Your task to perform on an android device: What's on the menu at Papa Murphy's? Image 0: 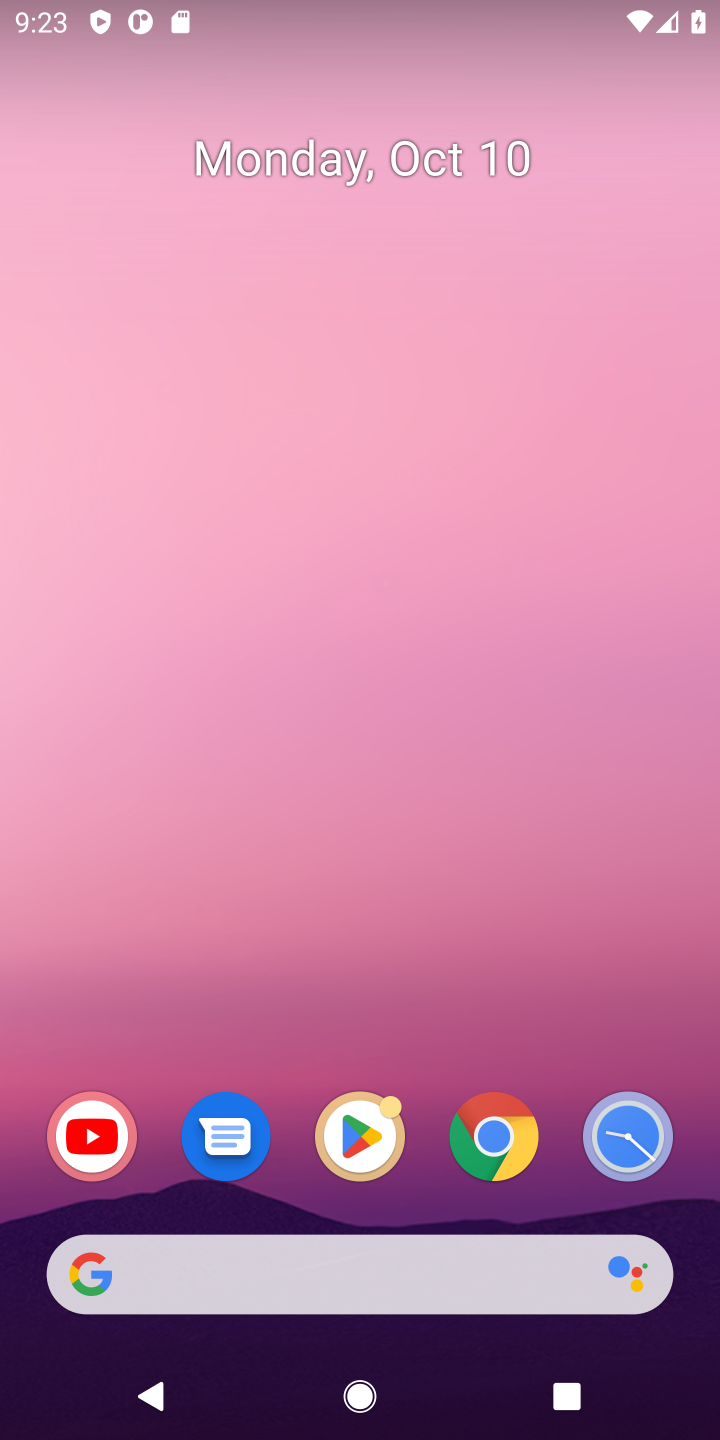
Step 0: click (471, 1152)
Your task to perform on an android device: What's on the menu at Papa Murphy's? Image 1: 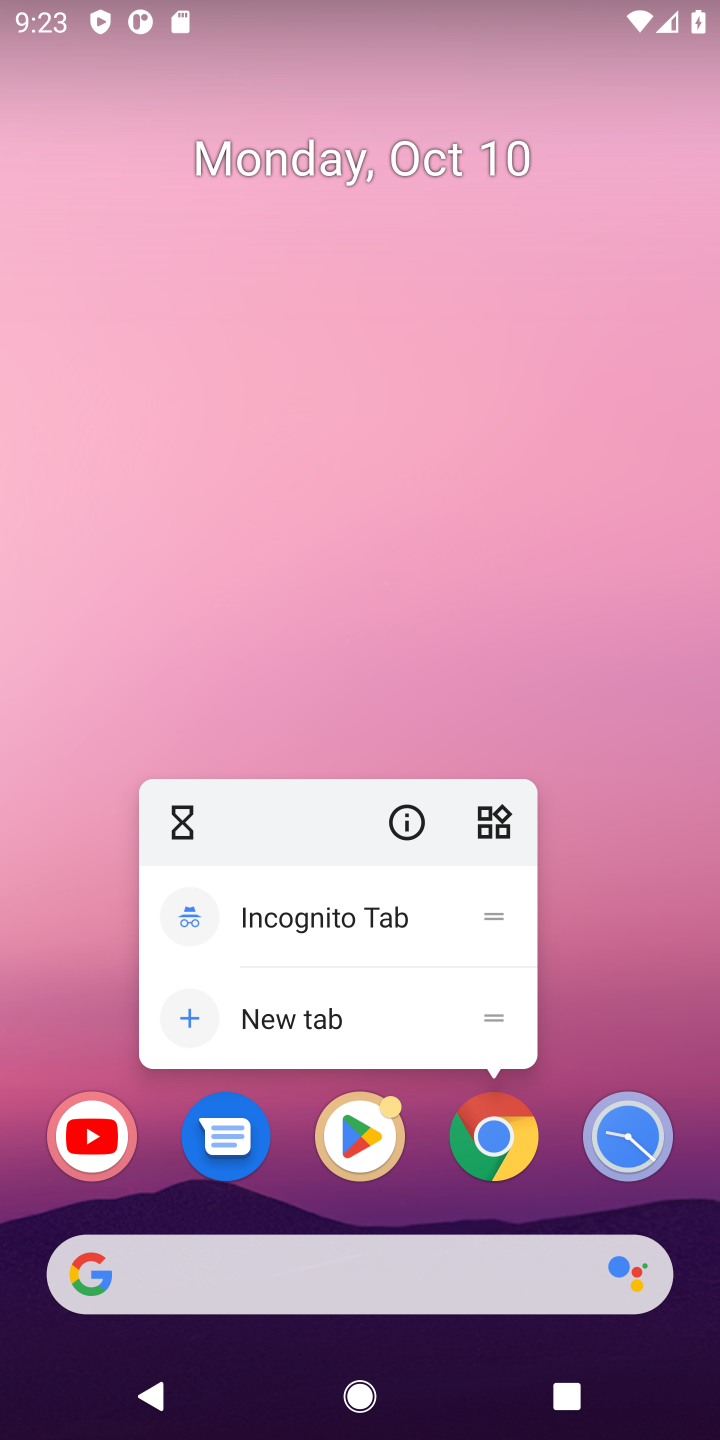
Step 1: click (483, 1151)
Your task to perform on an android device: What's on the menu at Papa Murphy's? Image 2: 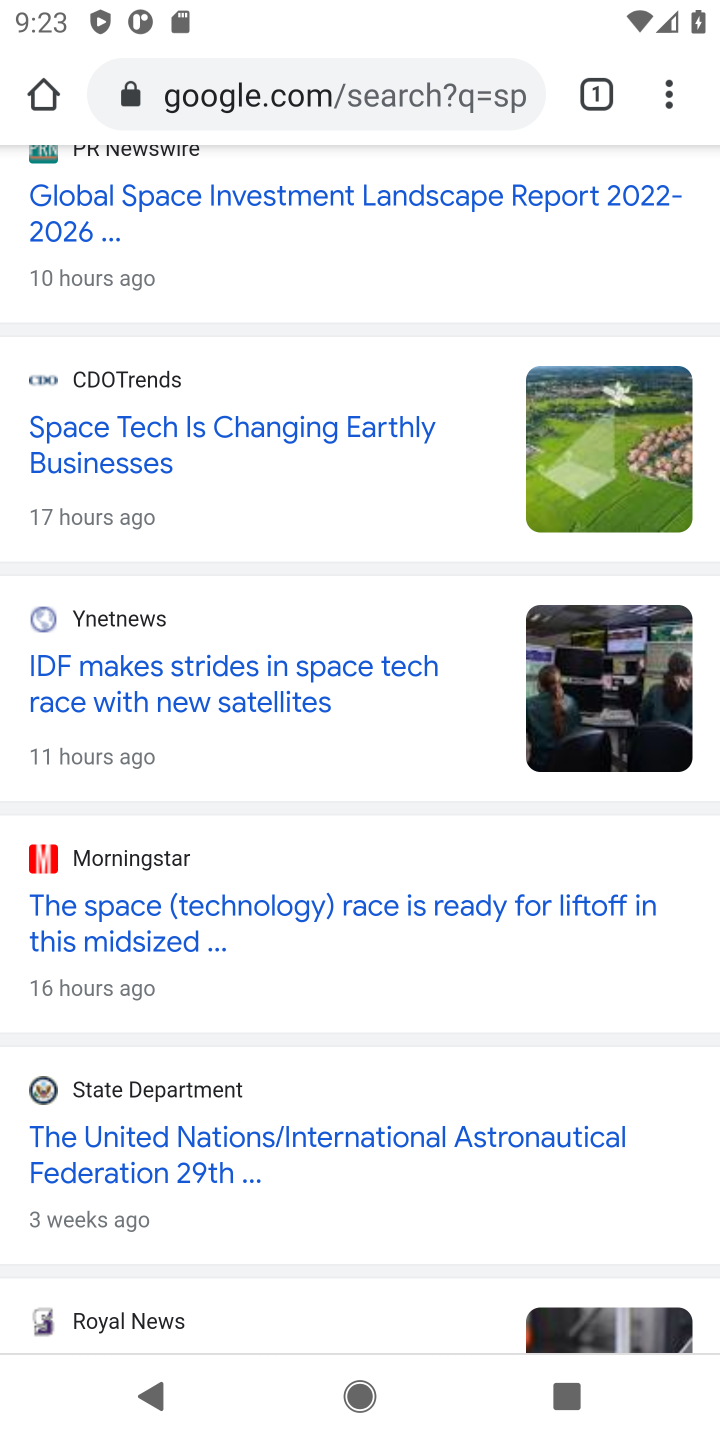
Step 2: click (260, 109)
Your task to perform on an android device: What's on the menu at Papa Murphy's? Image 3: 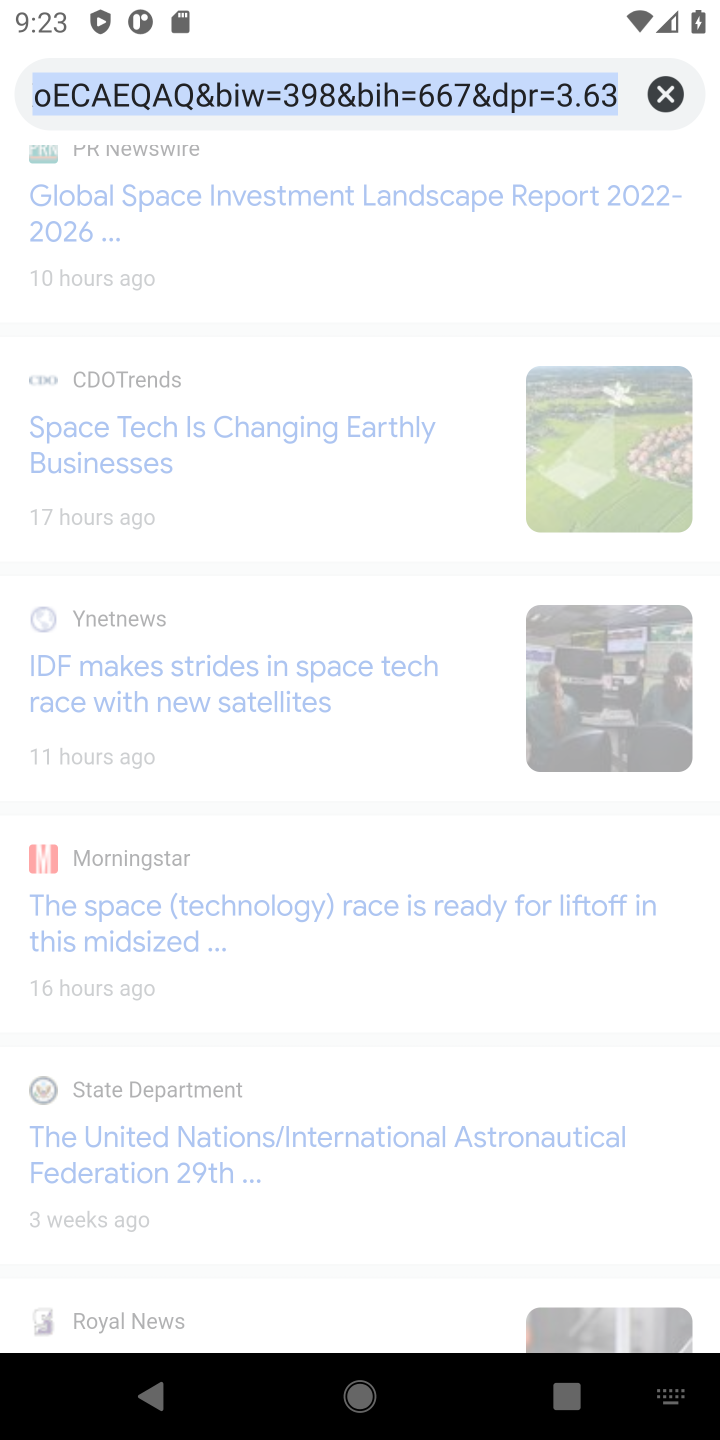
Step 3: type "menu at Papa Murphy's"
Your task to perform on an android device: What's on the menu at Papa Murphy's? Image 4: 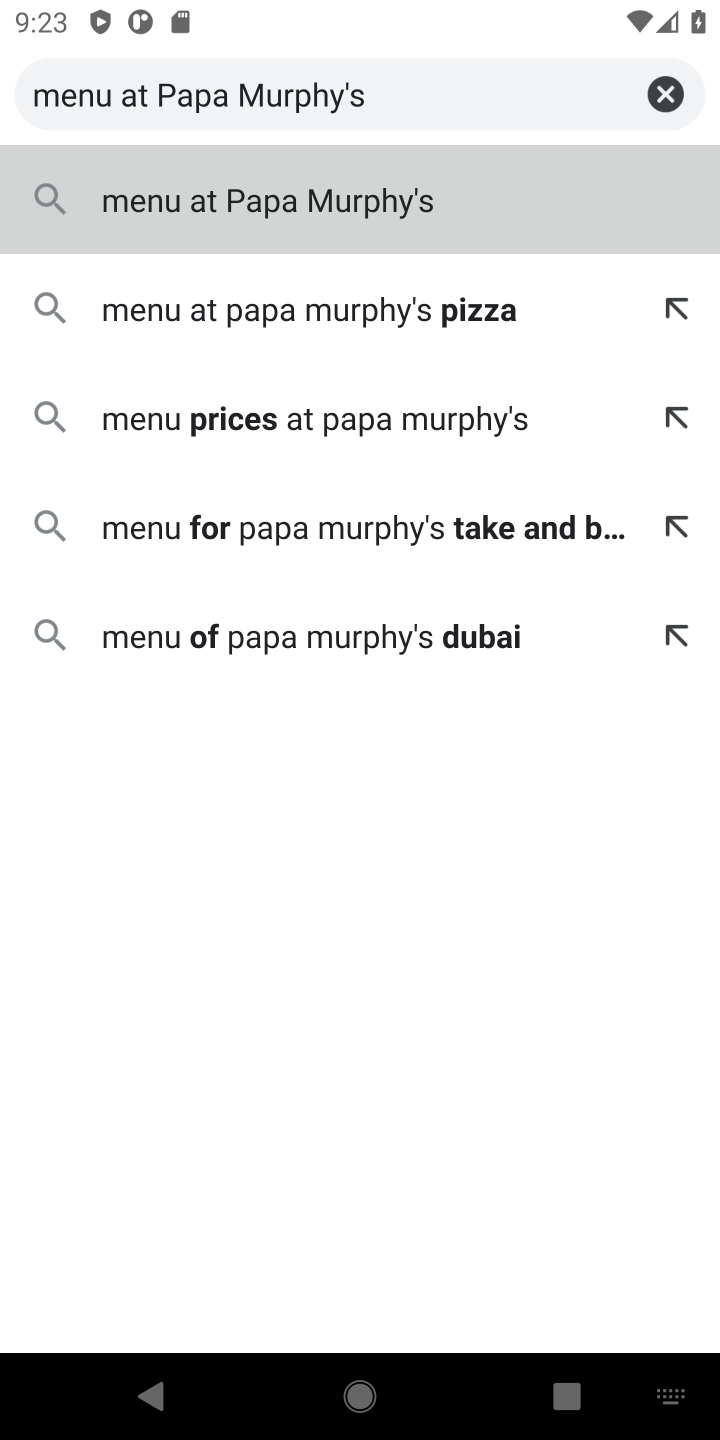
Step 4: click (434, 211)
Your task to perform on an android device: What's on the menu at Papa Murphy's? Image 5: 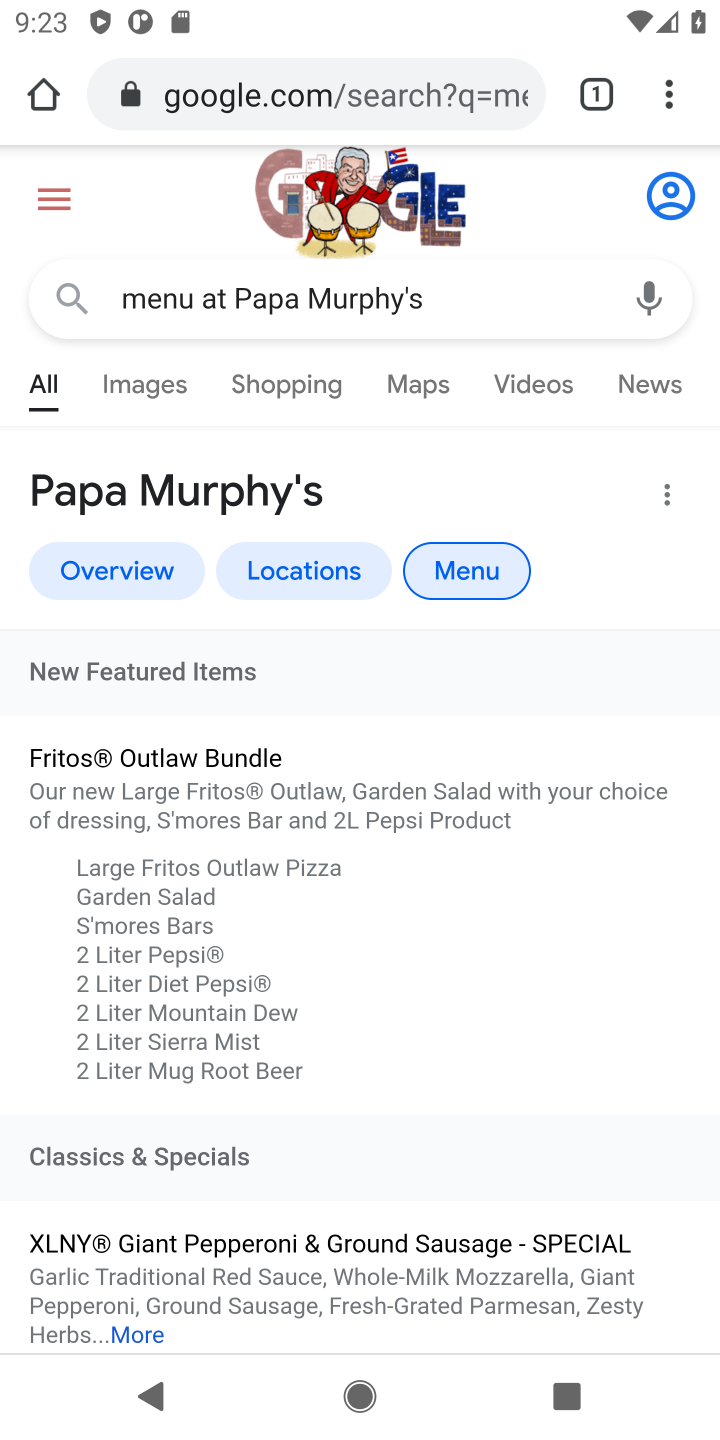
Step 5: drag from (465, 1029) to (337, 463)
Your task to perform on an android device: What's on the menu at Papa Murphy's? Image 6: 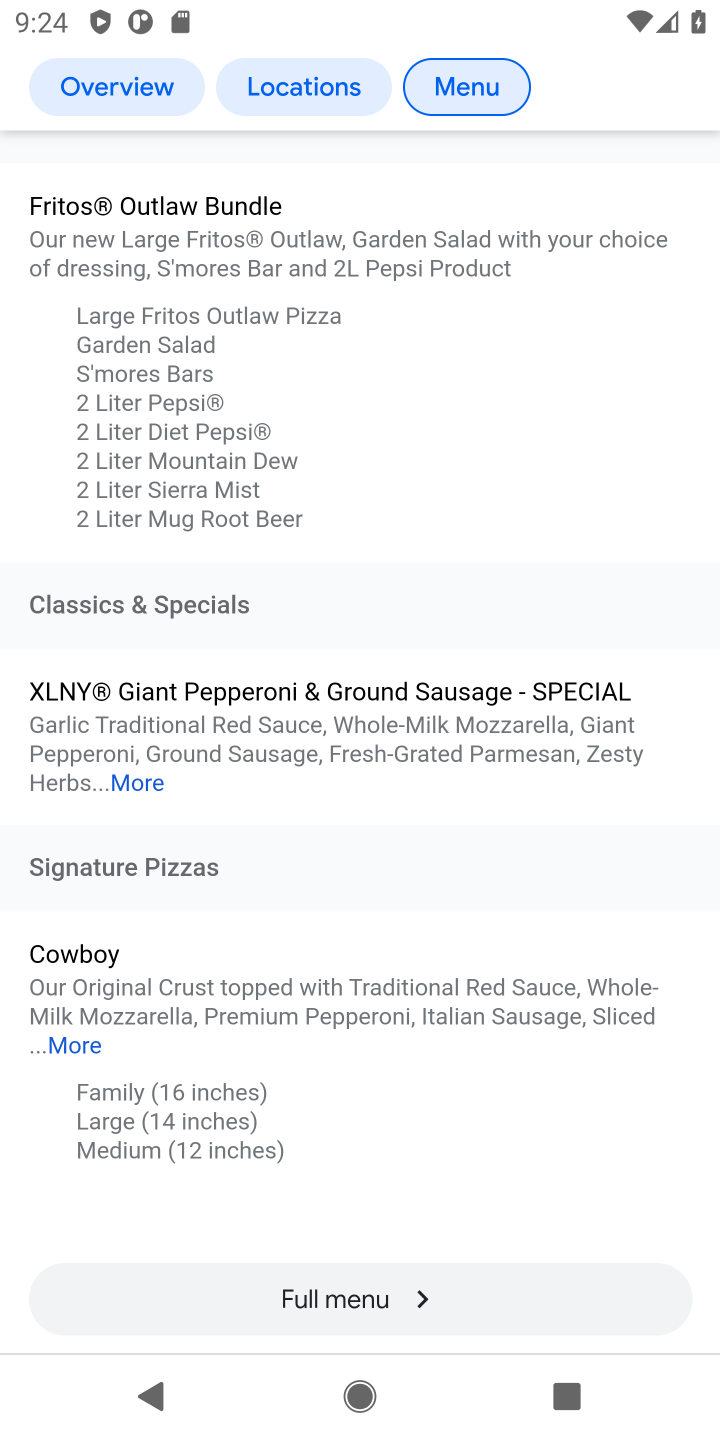
Step 6: click (318, 1304)
Your task to perform on an android device: What's on the menu at Papa Murphy's? Image 7: 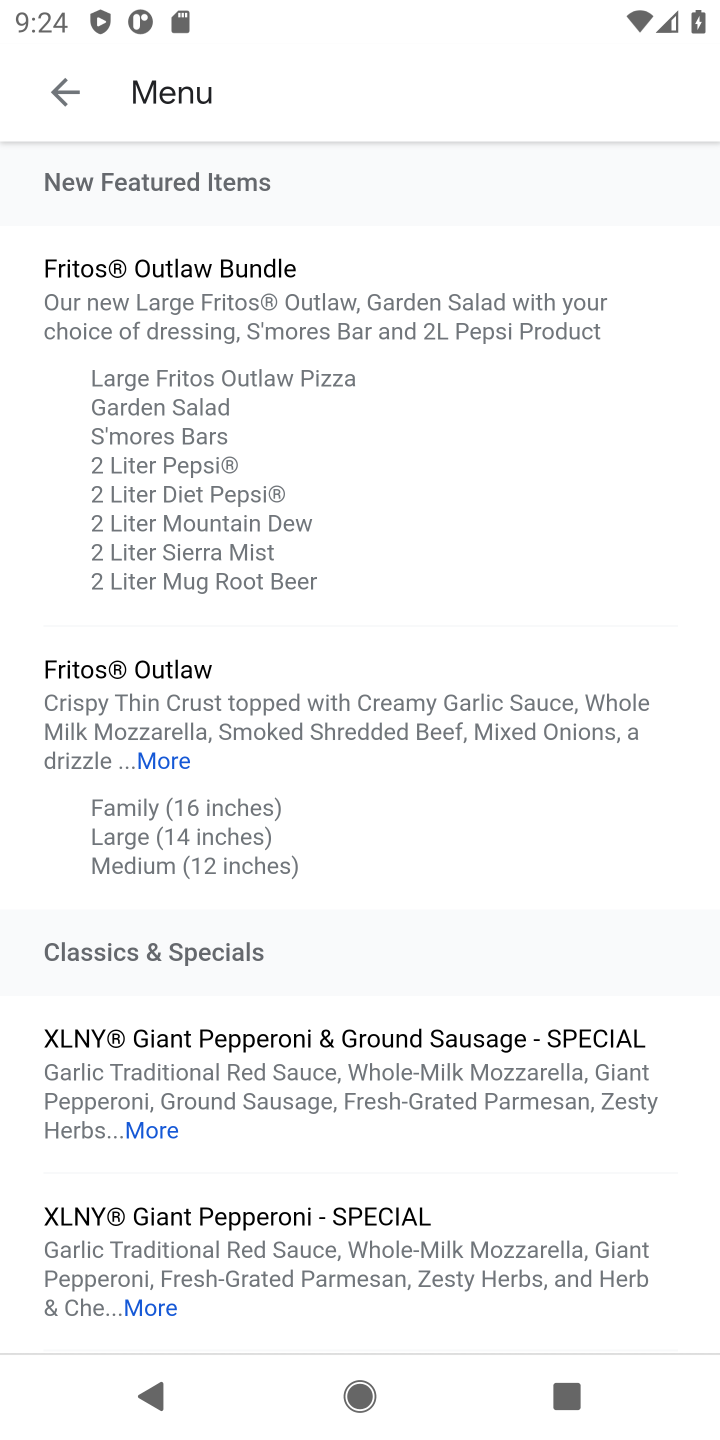
Step 7: task complete